Your task to perform on an android device: Open settings on Google Maps Image 0: 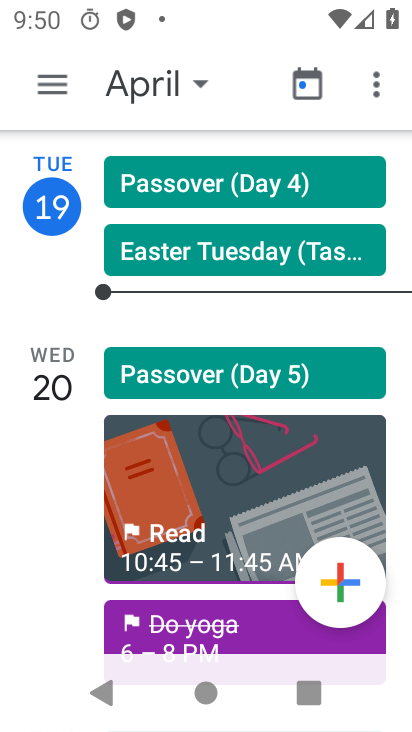
Step 0: press home button
Your task to perform on an android device: Open settings on Google Maps Image 1: 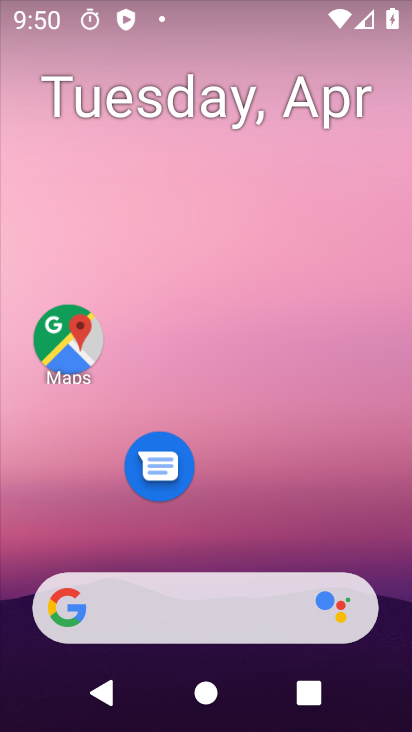
Step 1: click (331, 486)
Your task to perform on an android device: Open settings on Google Maps Image 2: 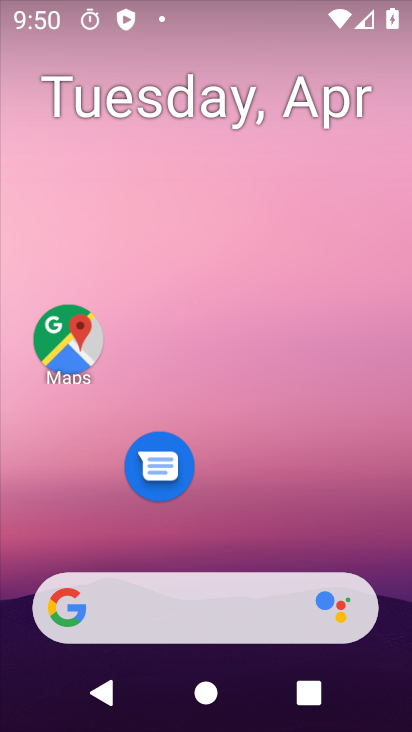
Step 2: click (69, 344)
Your task to perform on an android device: Open settings on Google Maps Image 3: 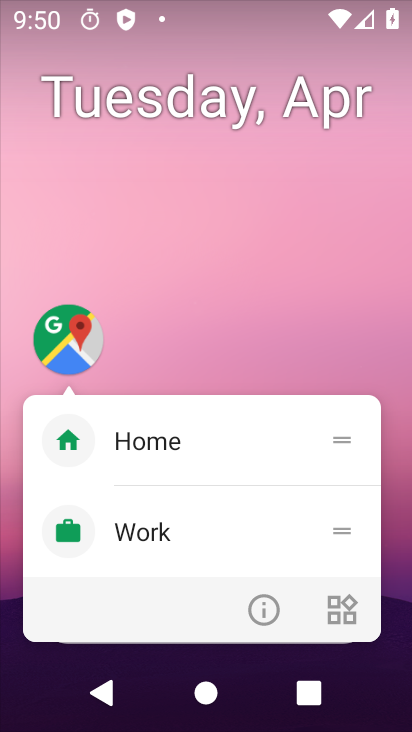
Step 3: click (69, 344)
Your task to perform on an android device: Open settings on Google Maps Image 4: 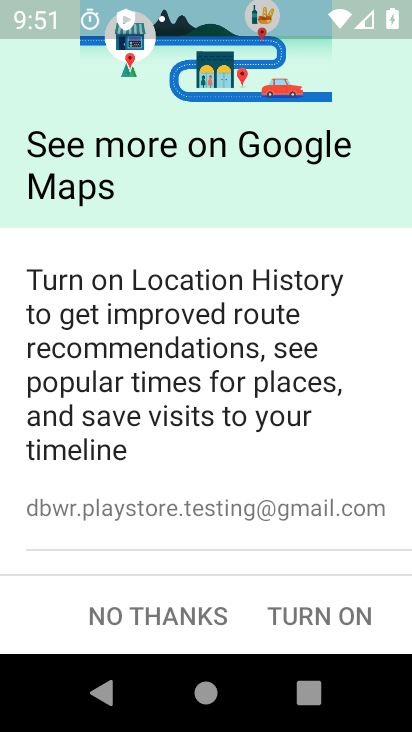
Step 4: drag from (260, 474) to (287, 108)
Your task to perform on an android device: Open settings on Google Maps Image 5: 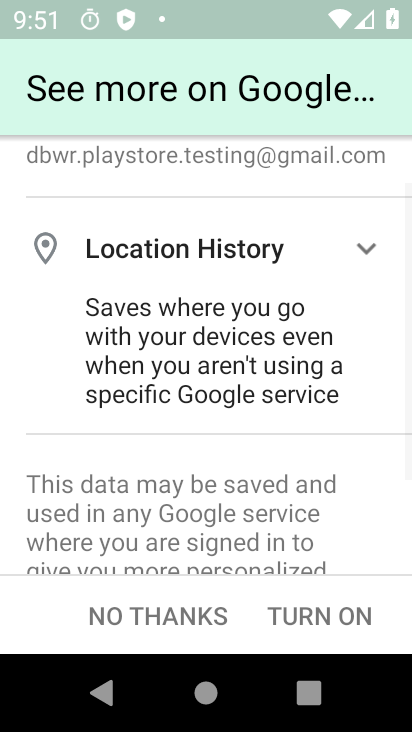
Step 5: drag from (249, 421) to (288, 241)
Your task to perform on an android device: Open settings on Google Maps Image 6: 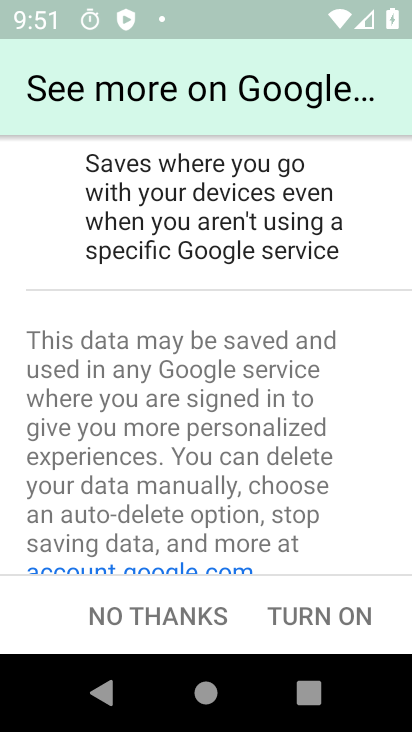
Step 6: drag from (240, 419) to (278, 231)
Your task to perform on an android device: Open settings on Google Maps Image 7: 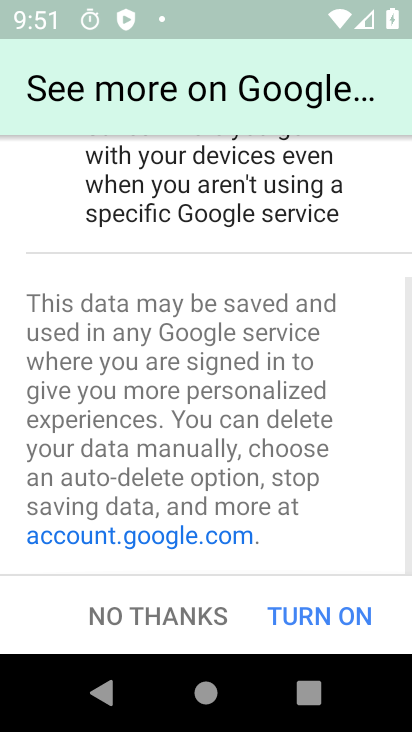
Step 7: drag from (251, 416) to (264, 351)
Your task to perform on an android device: Open settings on Google Maps Image 8: 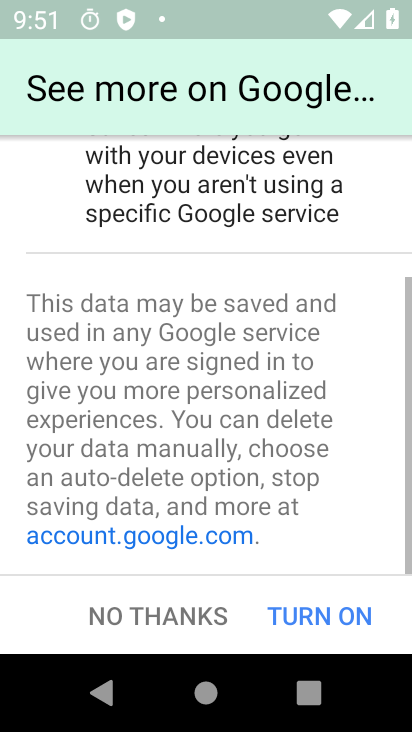
Step 8: click (305, 628)
Your task to perform on an android device: Open settings on Google Maps Image 9: 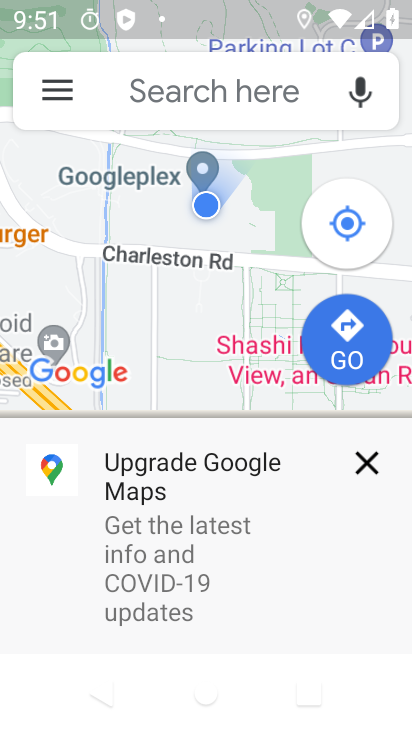
Step 9: click (375, 451)
Your task to perform on an android device: Open settings on Google Maps Image 10: 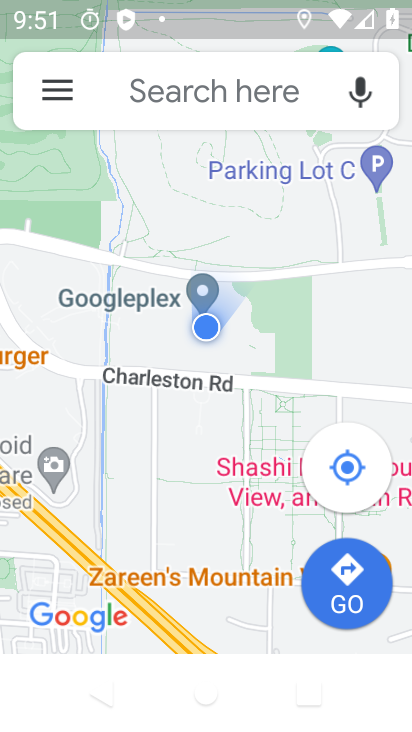
Step 10: task complete